Your task to perform on an android device: When is my next meeting? Image 0: 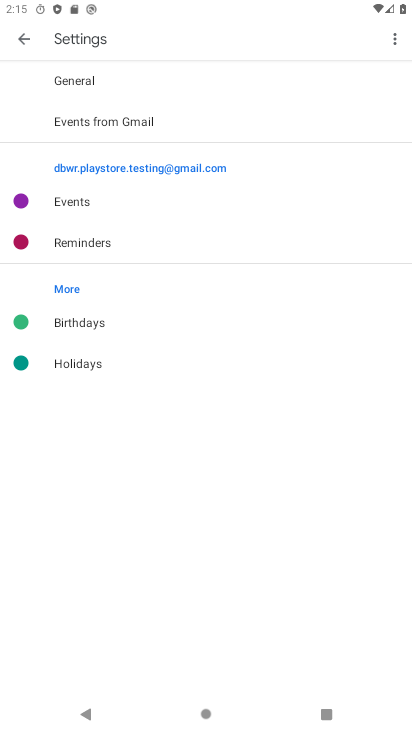
Step 0: click (21, 31)
Your task to perform on an android device: When is my next meeting? Image 1: 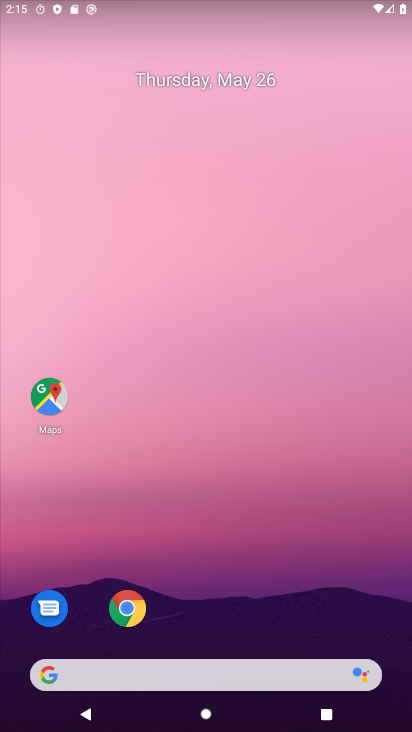
Step 1: drag from (252, 688) to (135, 122)
Your task to perform on an android device: When is my next meeting? Image 2: 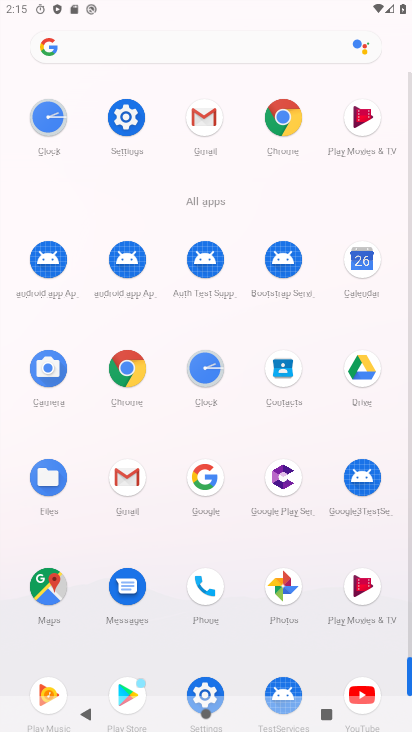
Step 2: click (352, 258)
Your task to perform on an android device: When is my next meeting? Image 3: 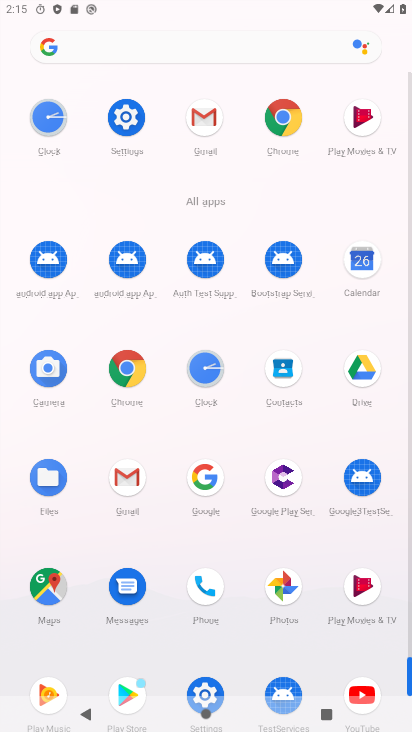
Step 3: click (352, 258)
Your task to perform on an android device: When is my next meeting? Image 4: 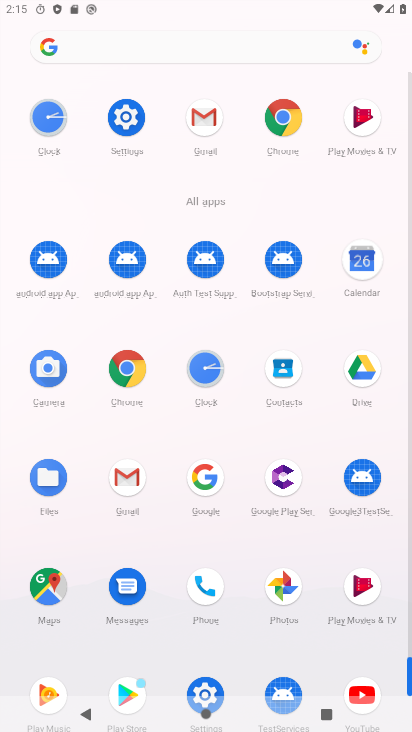
Step 4: click (352, 258)
Your task to perform on an android device: When is my next meeting? Image 5: 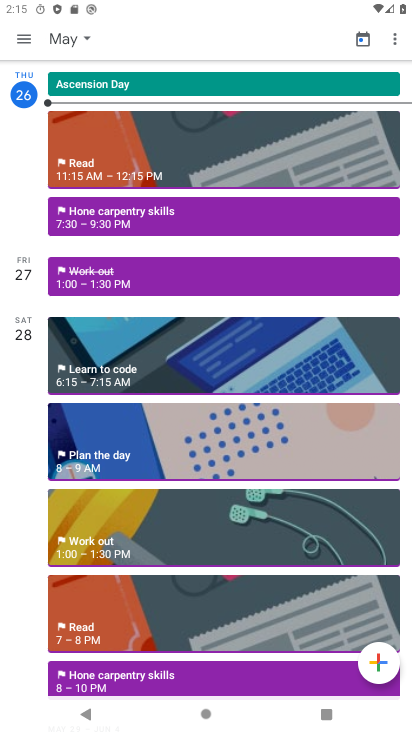
Step 5: press back button
Your task to perform on an android device: When is my next meeting? Image 6: 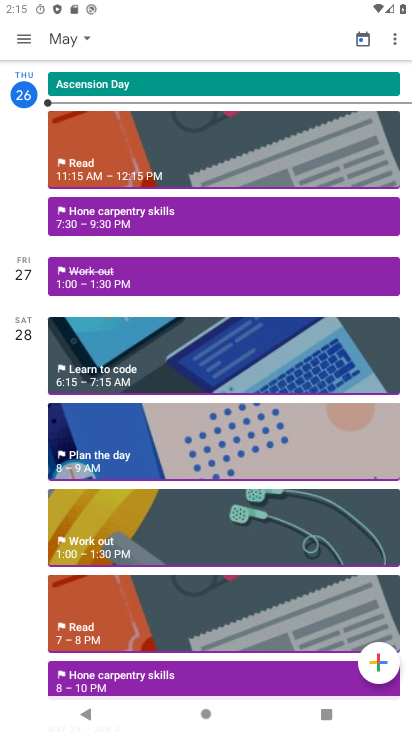
Step 6: press back button
Your task to perform on an android device: When is my next meeting? Image 7: 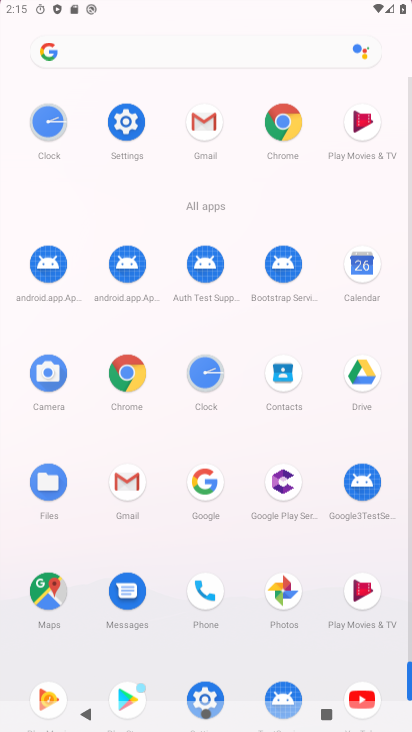
Step 7: press back button
Your task to perform on an android device: When is my next meeting? Image 8: 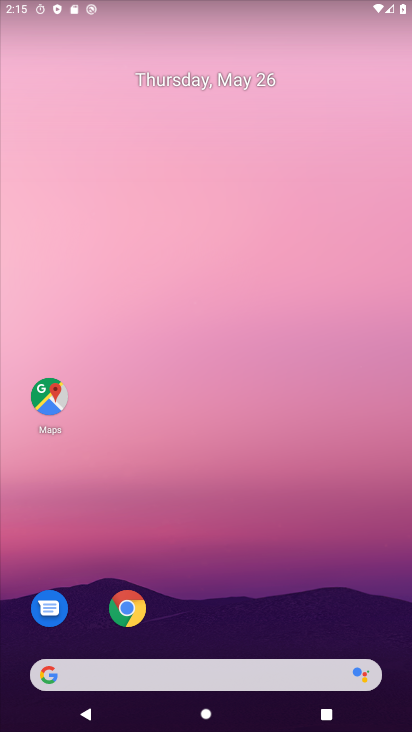
Step 8: click (193, 197)
Your task to perform on an android device: When is my next meeting? Image 9: 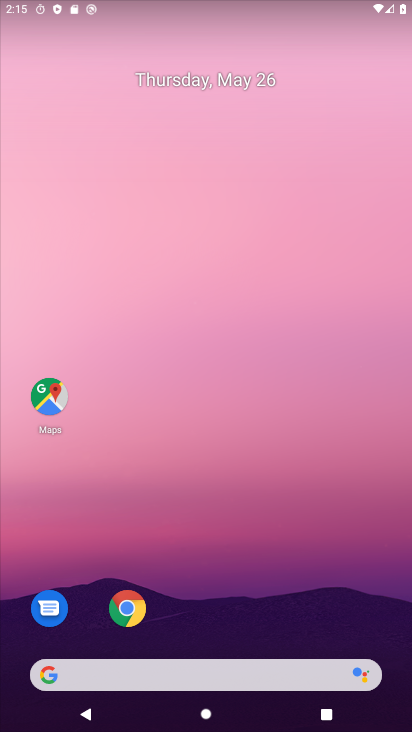
Step 9: drag from (266, 519) to (257, 76)
Your task to perform on an android device: When is my next meeting? Image 10: 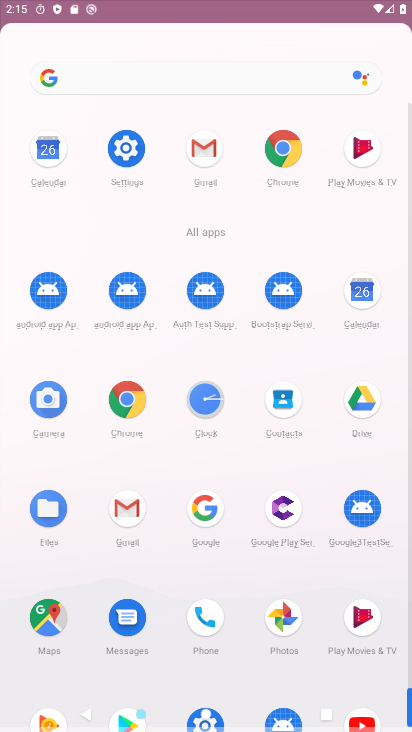
Step 10: drag from (237, 521) to (141, 140)
Your task to perform on an android device: When is my next meeting? Image 11: 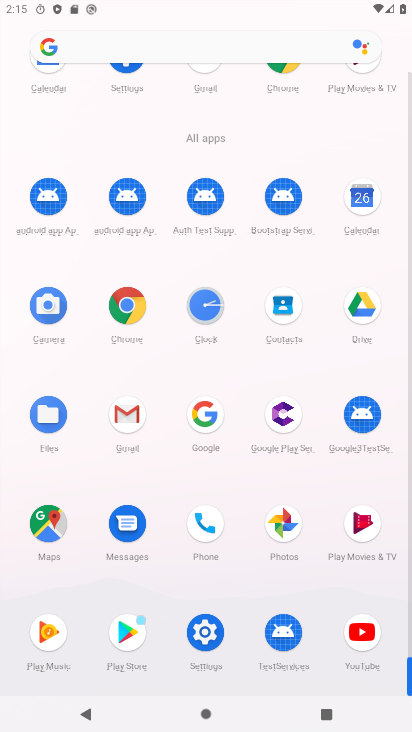
Step 11: click (360, 196)
Your task to perform on an android device: When is my next meeting? Image 12: 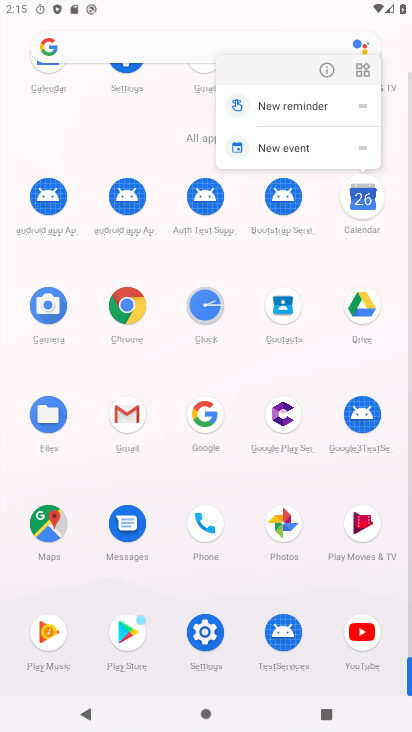
Step 12: click (360, 196)
Your task to perform on an android device: When is my next meeting? Image 13: 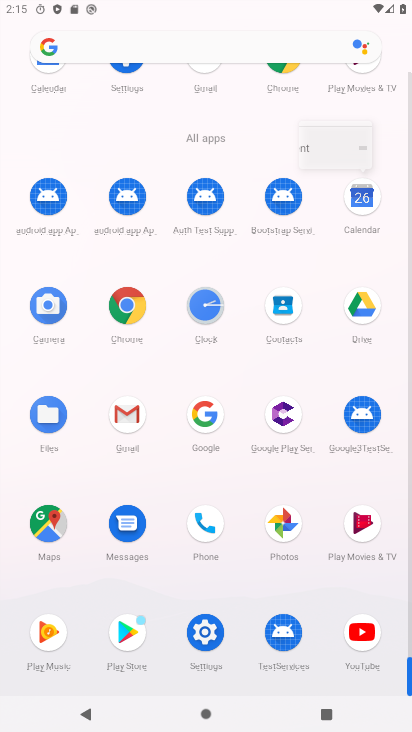
Step 13: click (360, 196)
Your task to perform on an android device: When is my next meeting? Image 14: 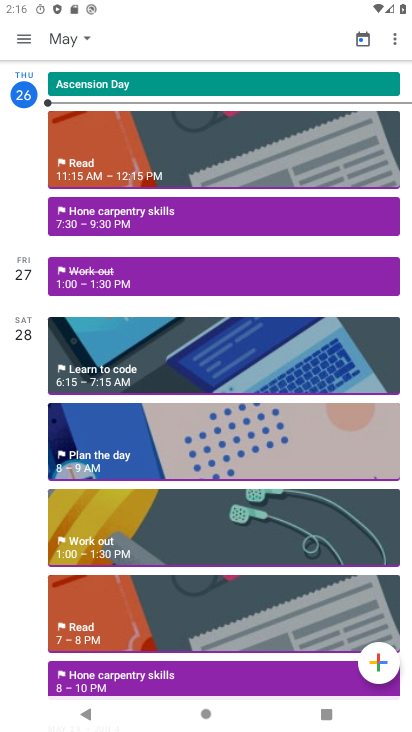
Step 14: click (64, 358)
Your task to perform on an android device: When is my next meeting? Image 15: 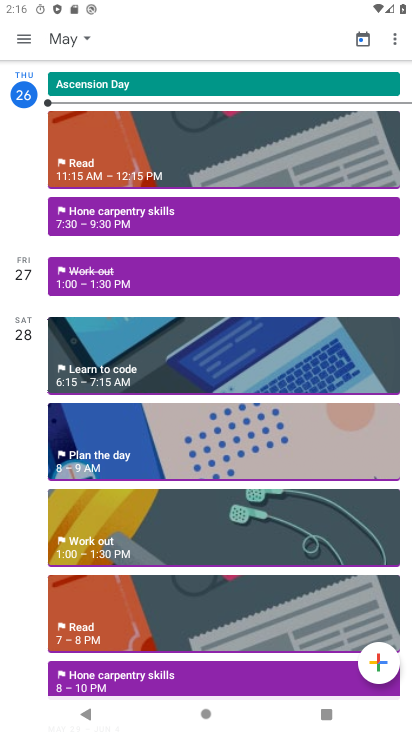
Step 15: click (68, 357)
Your task to perform on an android device: When is my next meeting? Image 16: 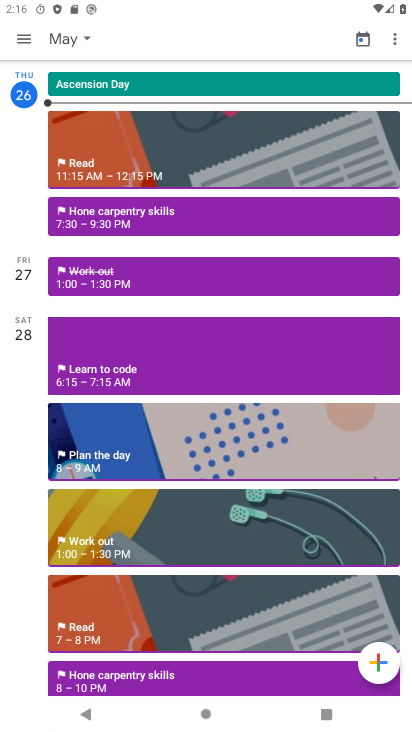
Step 16: click (71, 355)
Your task to perform on an android device: When is my next meeting? Image 17: 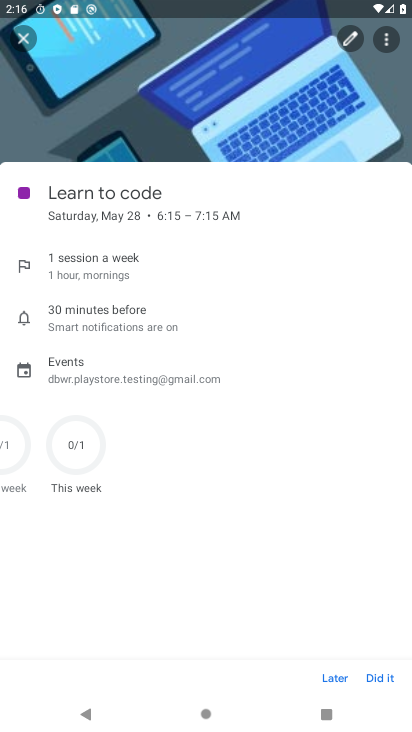
Step 17: task complete